Your task to perform on an android device: turn off javascript in the chrome app Image 0: 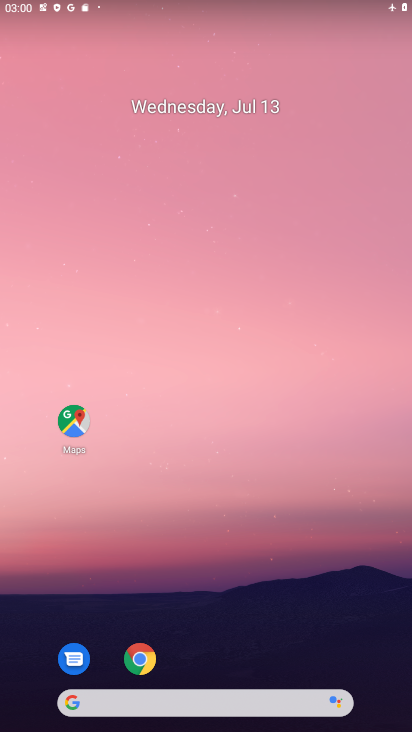
Step 0: click (154, 655)
Your task to perform on an android device: turn off javascript in the chrome app Image 1: 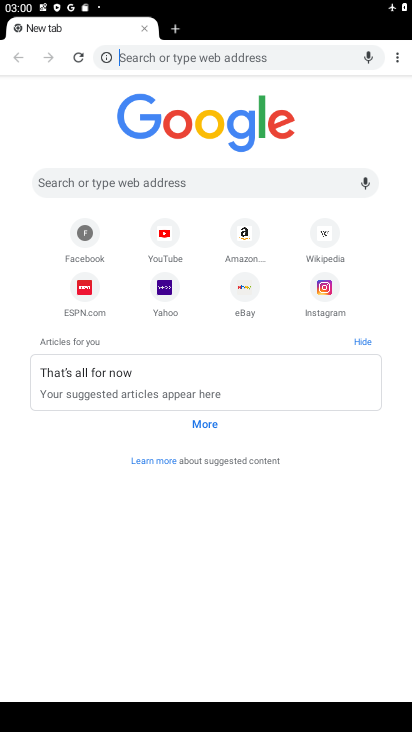
Step 1: click (392, 66)
Your task to perform on an android device: turn off javascript in the chrome app Image 2: 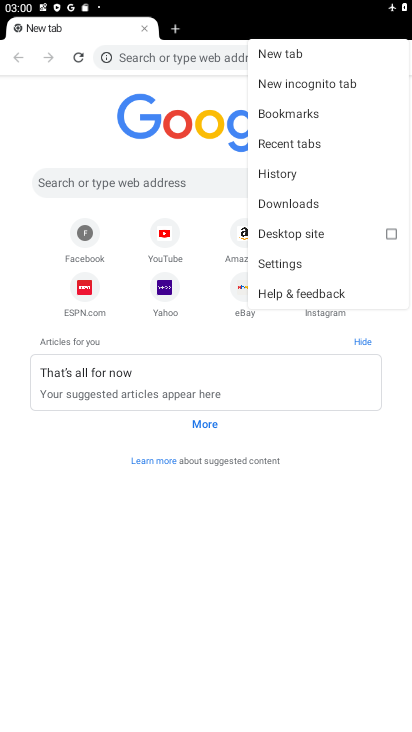
Step 2: click (295, 255)
Your task to perform on an android device: turn off javascript in the chrome app Image 3: 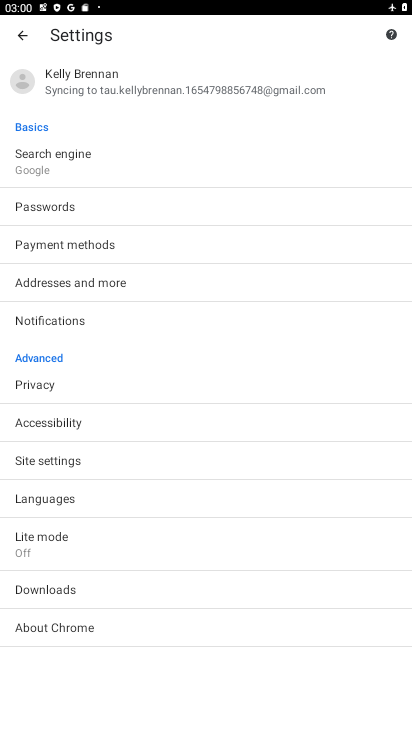
Step 3: click (126, 455)
Your task to perform on an android device: turn off javascript in the chrome app Image 4: 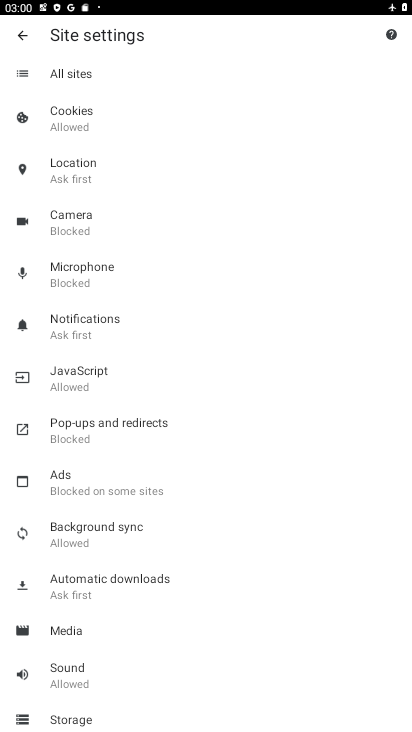
Step 4: click (133, 381)
Your task to perform on an android device: turn off javascript in the chrome app Image 5: 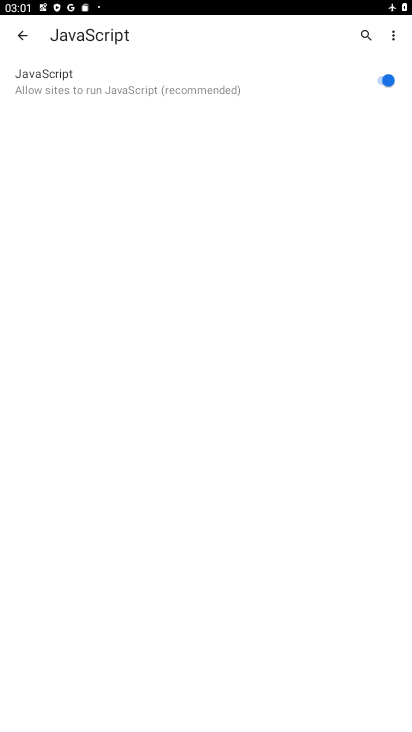
Step 5: click (363, 66)
Your task to perform on an android device: turn off javascript in the chrome app Image 6: 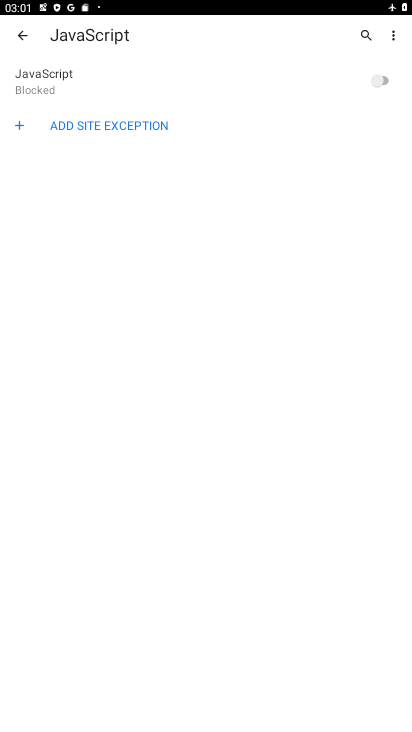
Step 6: task complete